Your task to perform on an android device: Search for vegetarian restaurants on Maps Image 0: 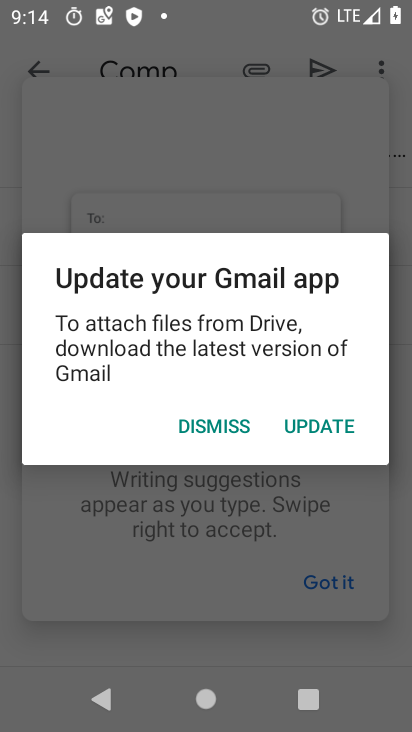
Step 0: press home button
Your task to perform on an android device: Search for vegetarian restaurants on Maps Image 1: 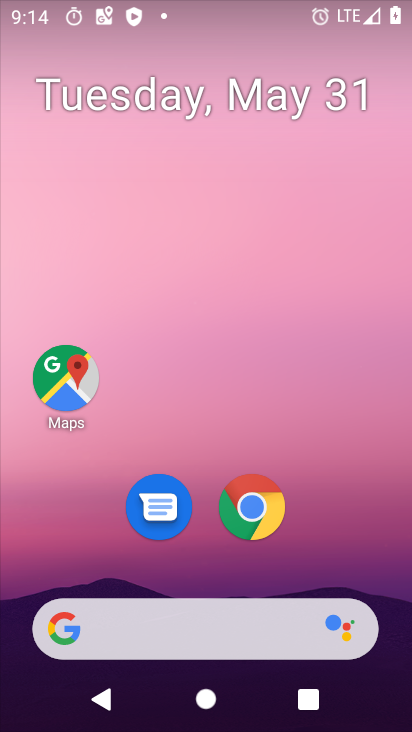
Step 1: click (47, 374)
Your task to perform on an android device: Search for vegetarian restaurants on Maps Image 2: 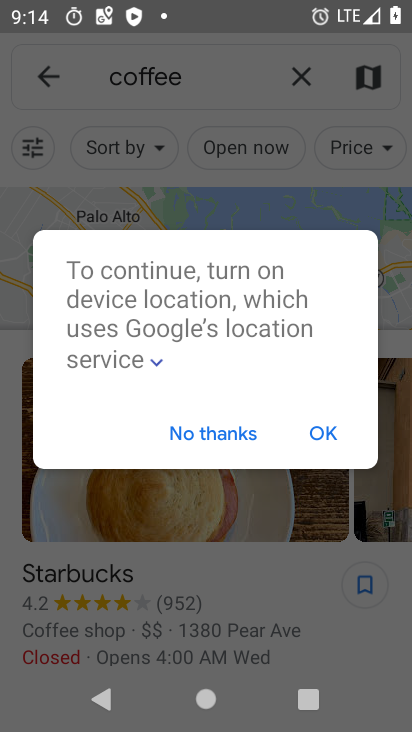
Step 2: click (307, 429)
Your task to perform on an android device: Search for vegetarian restaurants on Maps Image 3: 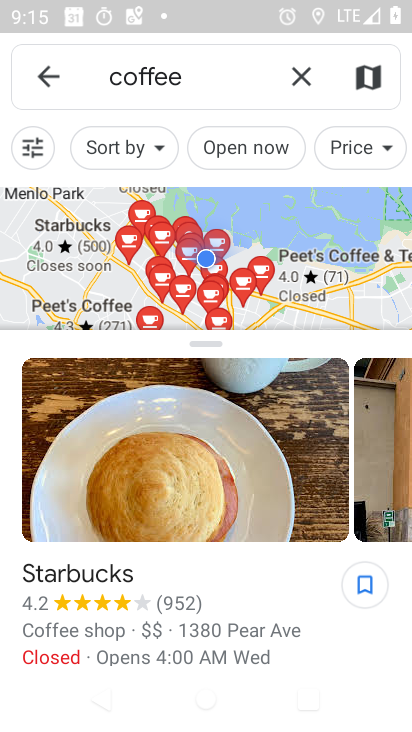
Step 3: click (295, 70)
Your task to perform on an android device: Search for vegetarian restaurants on Maps Image 4: 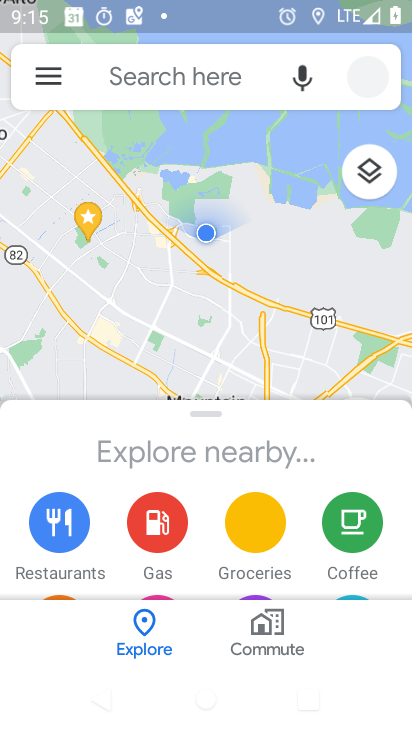
Step 4: click (190, 86)
Your task to perform on an android device: Search for vegetarian restaurants on Maps Image 5: 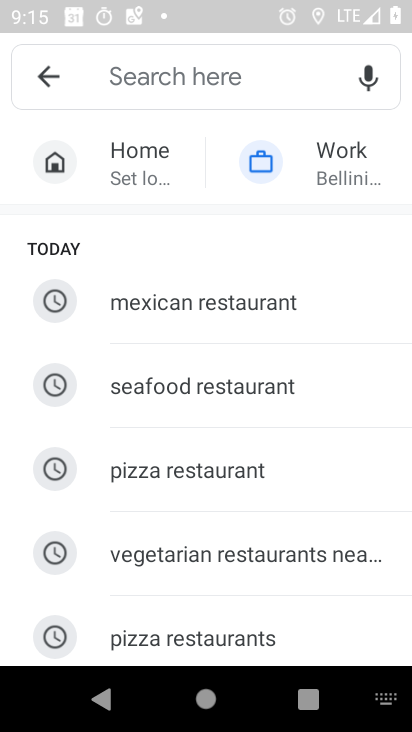
Step 5: click (177, 561)
Your task to perform on an android device: Search for vegetarian restaurants on Maps Image 6: 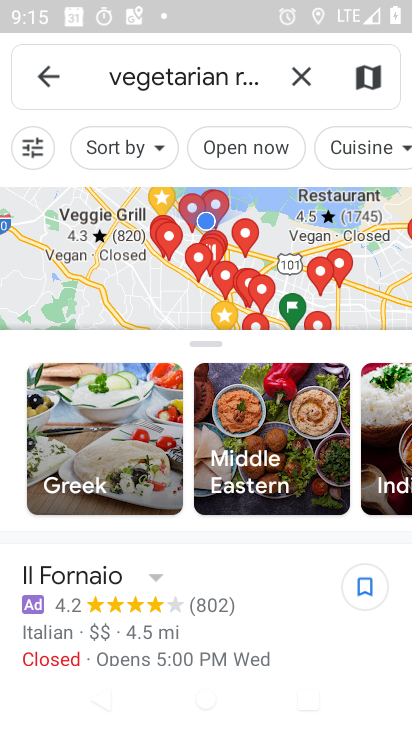
Step 6: task complete